Your task to perform on an android device: star an email in the gmail app Image 0: 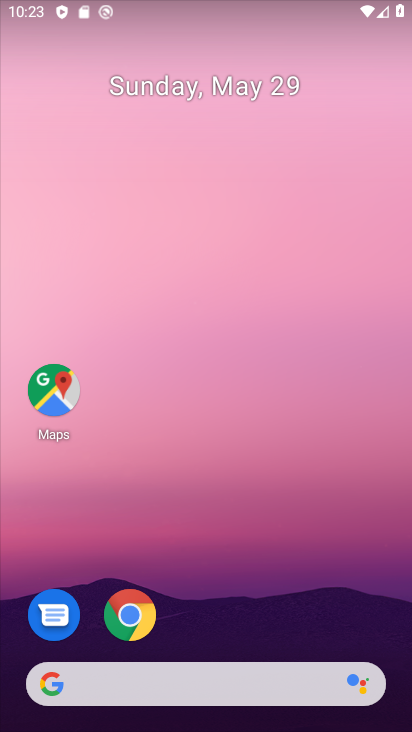
Step 0: drag from (371, 621) to (368, 182)
Your task to perform on an android device: star an email in the gmail app Image 1: 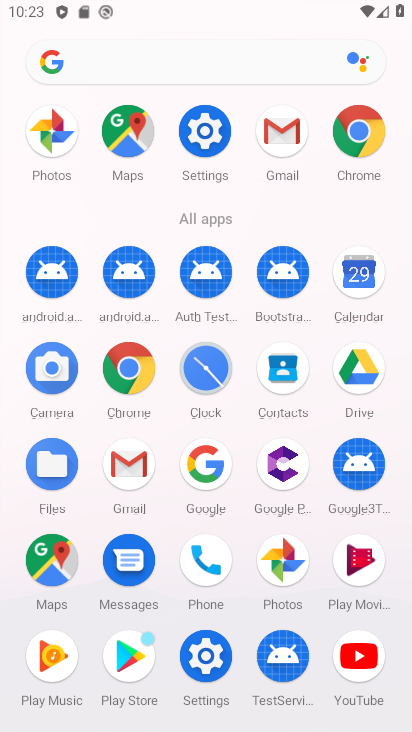
Step 1: click (135, 466)
Your task to perform on an android device: star an email in the gmail app Image 2: 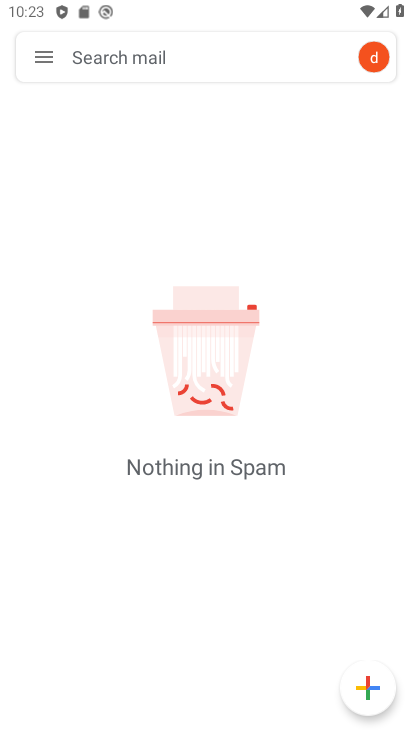
Step 2: click (51, 62)
Your task to perform on an android device: star an email in the gmail app Image 3: 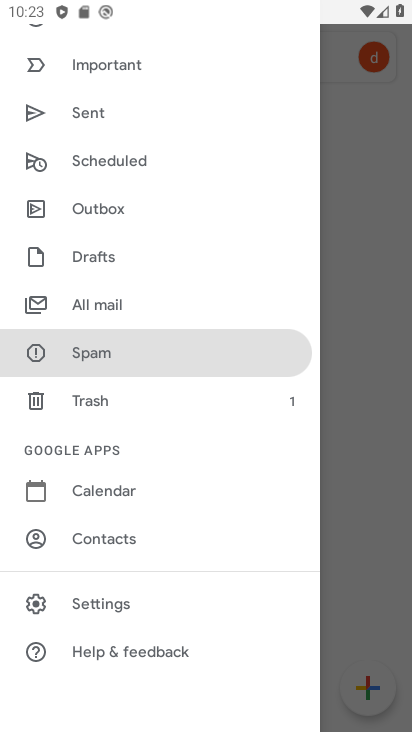
Step 3: drag from (243, 236) to (242, 359)
Your task to perform on an android device: star an email in the gmail app Image 4: 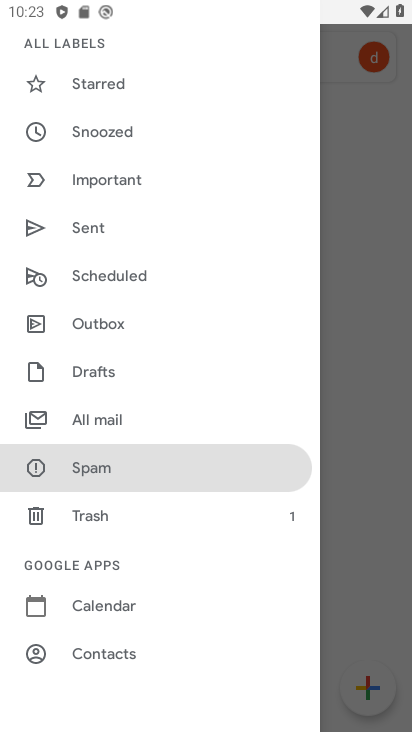
Step 4: drag from (220, 203) to (211, 375)
Your task to perform on an android device: star an email in the gmail app Image 5: 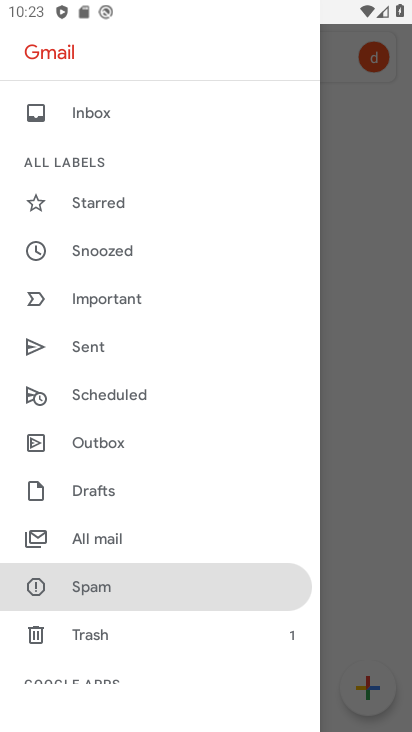
Step 5: drag from (209, 210) to (204, 423)
Your task to perform on an android device: star an email in the gmail app Image 6: 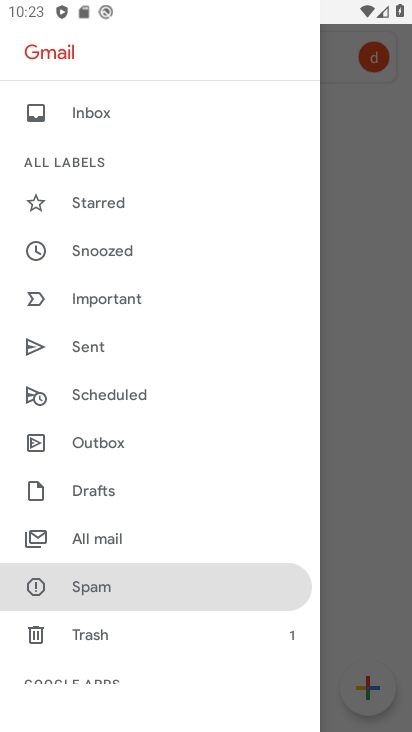
Step 6: click (111, 96)
Your task to perform on an android device: star an email in the gmail app Image 7: 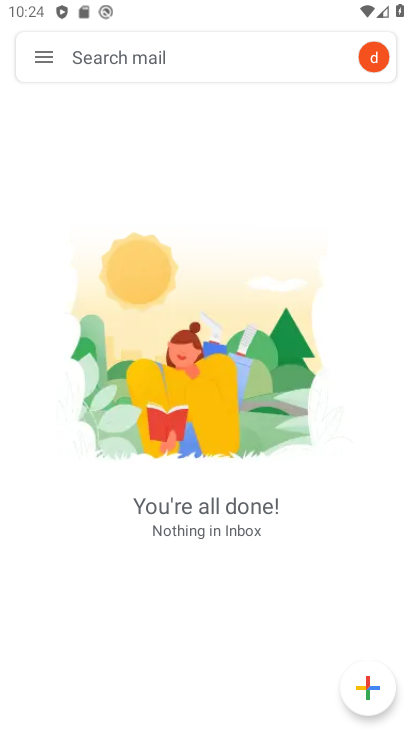
Step 7: task complete